Your task to perform on an android device: Check the news Image 0: 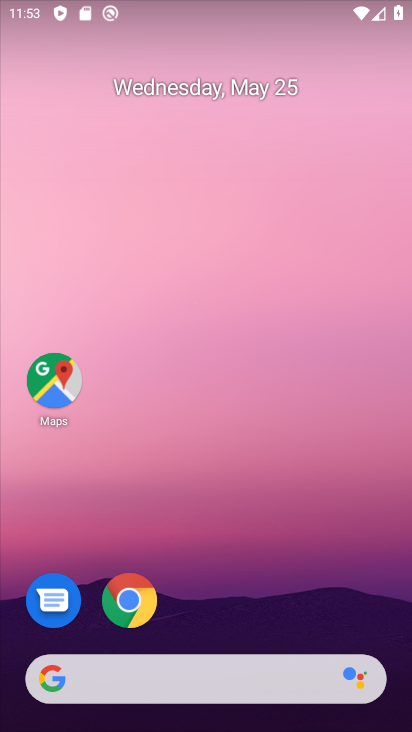
Step 0: drag from (306, 588) to (336, 123)
Your task to perform on an android device: Check the news Image 1: 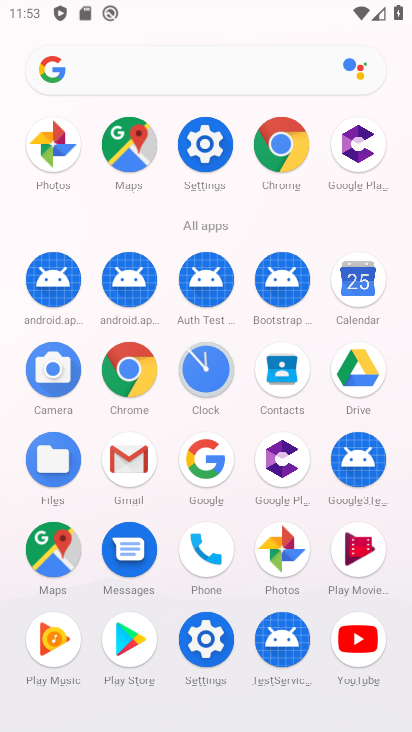
Step 1: click (130, 375)
Your task to perform on an android device: Check the news Image 2: 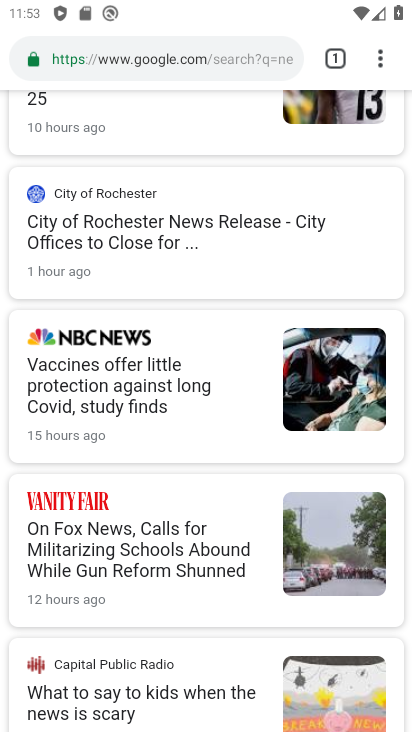
Step 2: click (239, 52)
Your task to perform on an android device: Check the news Image 3: 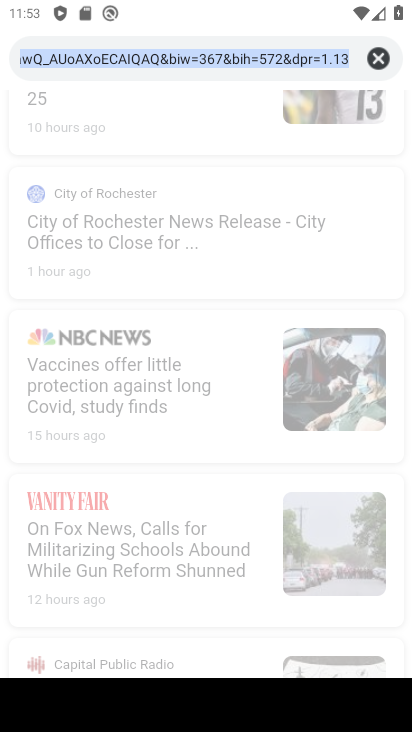
Step 3: click (383, 58)
Your task to perform on an android device: Check the news Image 4: 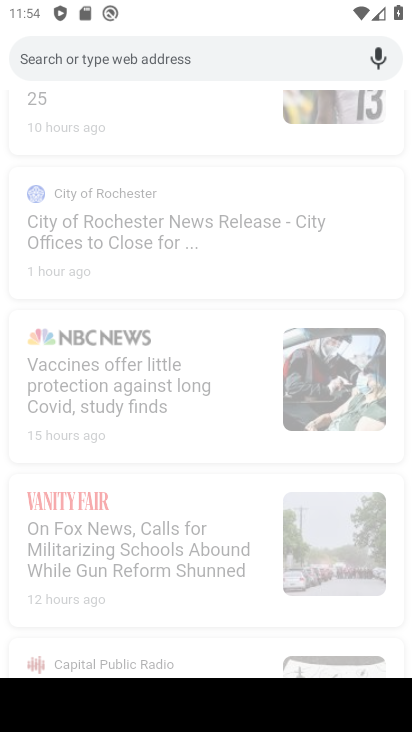
Step 4: type "news"
Your task to perform on an android device: Check the news Image 5: 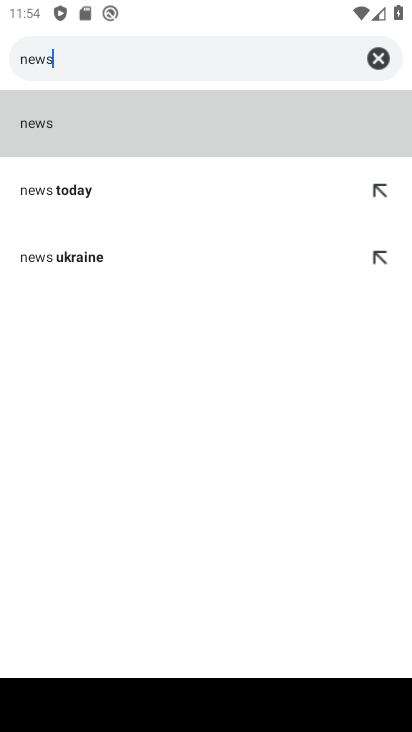
Step 5: click (50, 123)
Your task to perform on an android device: Check the news Image 6: 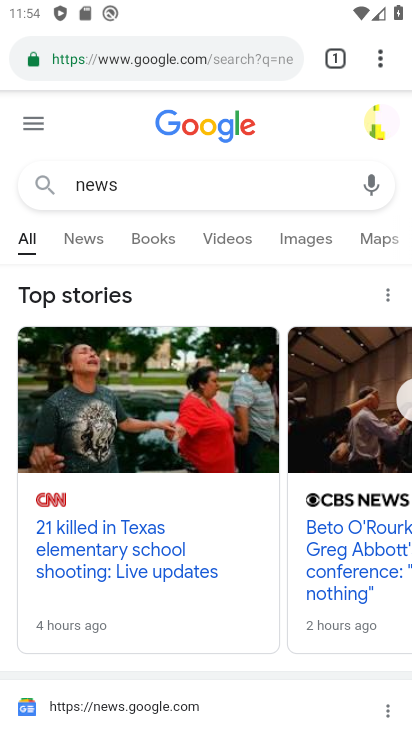
Step 6: click (83, 242)
Your task to perform on an android device: Check the news Image 7: 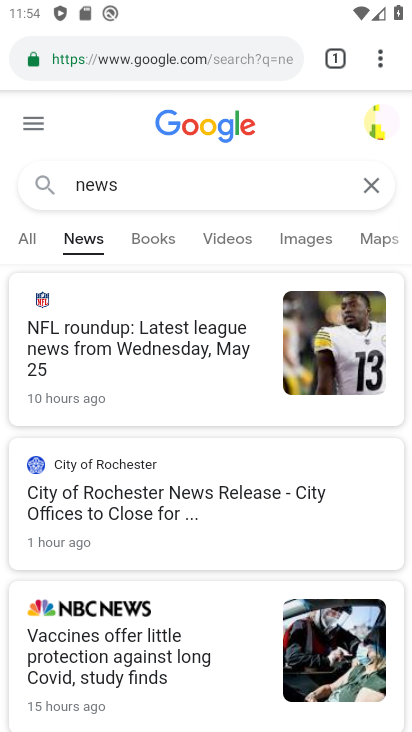
Step 7: task complete